Your task to perform on an android device: turn on showing notifications on the lock screen Image 0: 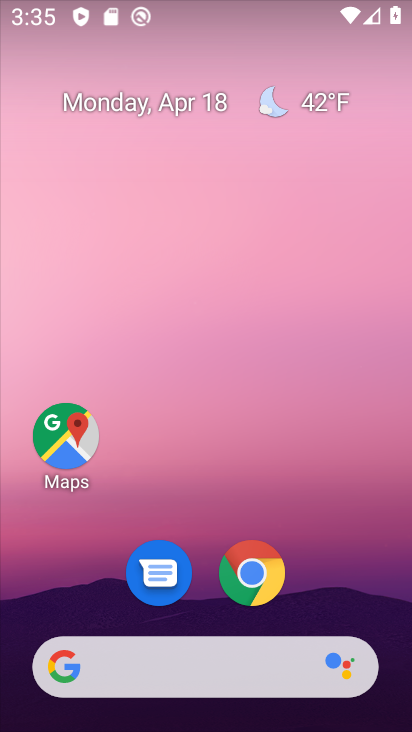
Step 0: drag from (223, 616) to (312, 99)
Your task to perform on an android device: turn on showing notifications on the lock screen Image 1: 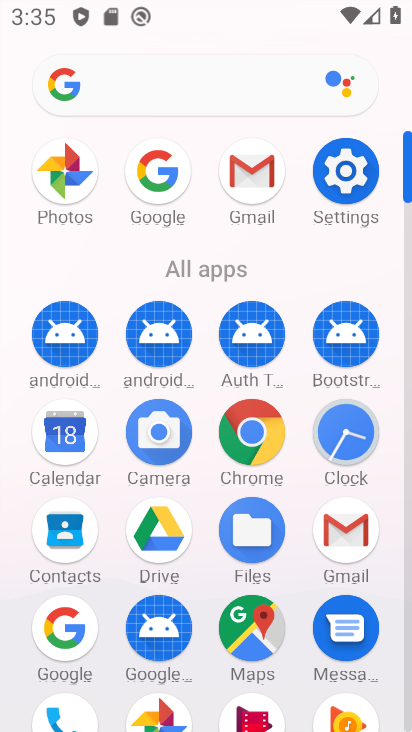
Step 1: click (345, 174)
Your task to perform on an android device: turn on showing notifications on the lock screen Image 2: 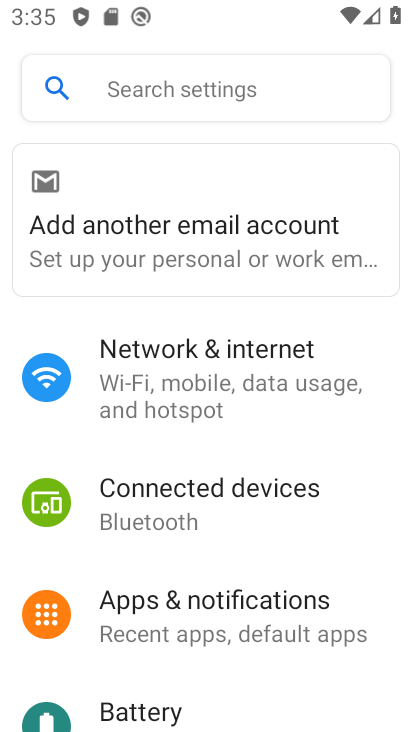
Step 2: drag from (263, 679) to (253, 333)
Your task to perform on an android device: turn on showing notifications on the lock screen Image 3: 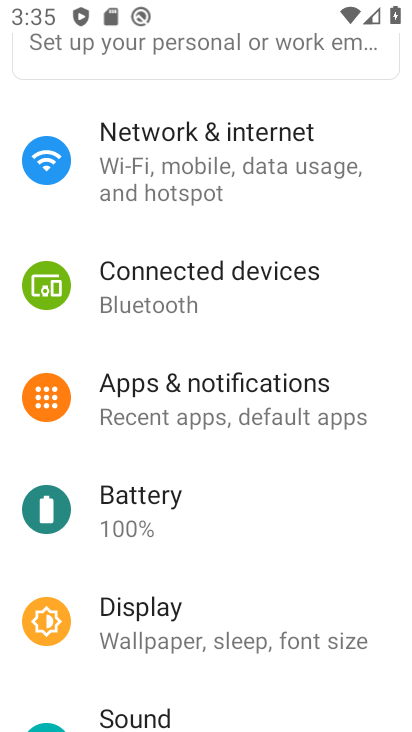
Step 3: drag from (260, 687) to (219, 407)
Your task to perform on an android device: turn on showing notifications on the lock screen Image 4: 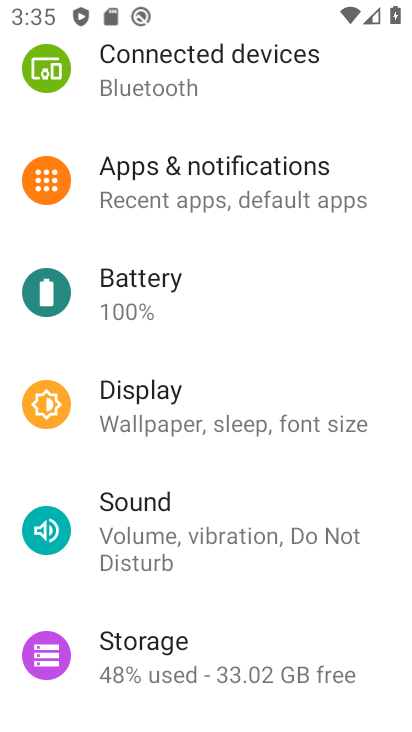
Step 4: drag from (229, 684) to (228, 325)
Your task to perform on an android device: turn on showing notifications on the lock screen Image 5: 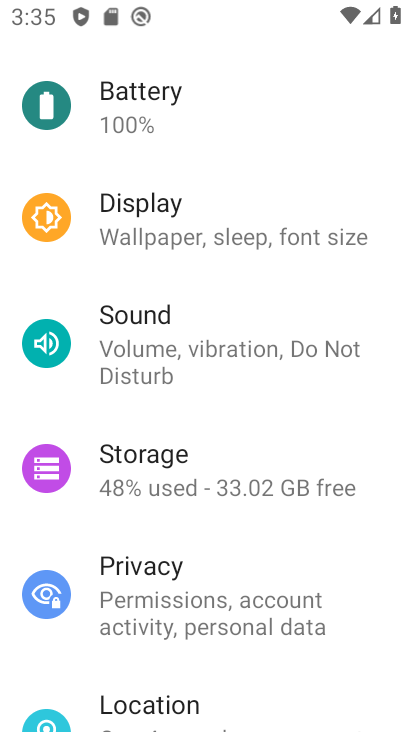
Step 5: click (188, 595)
Your task to perform on an android device: turn on showing notifications on the lock screen Image 6: 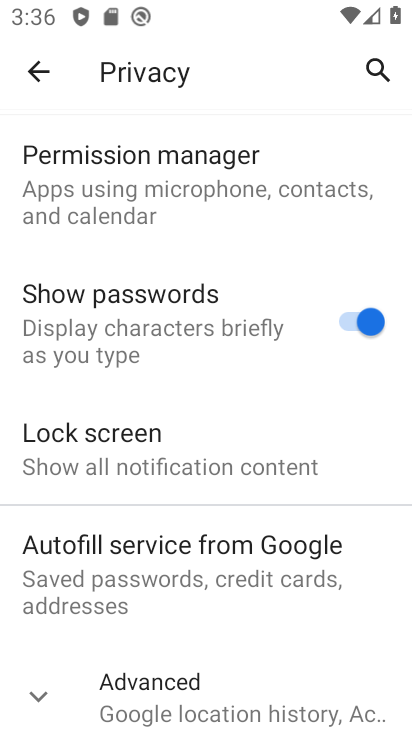
Step 6: click (120, 442)
Your task to perform on an android device: turn on showing notifications on the lock screen Image 7: 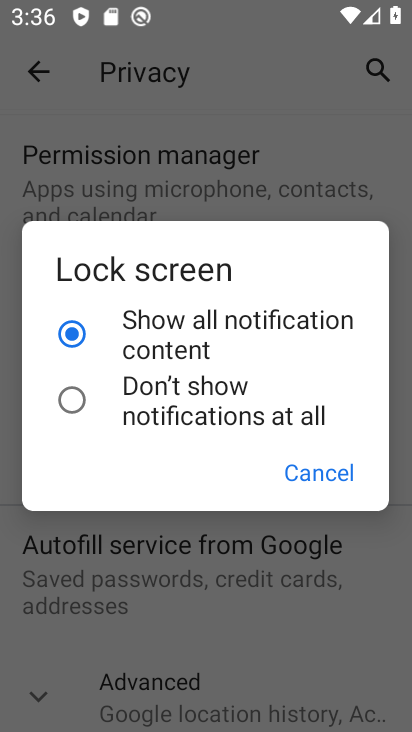
Step 7: task complete